Your task to perform on an android device: open app "Booking.com: Hotels and more" (install if not already installed) Image 0: 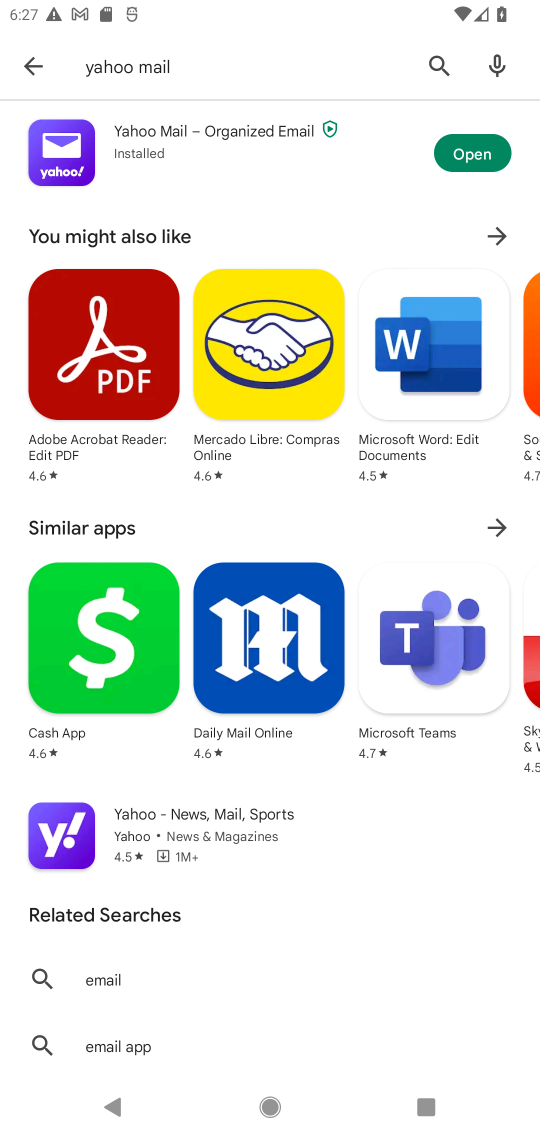
Step 0: click (431, 53)
Your task to perform on an android device: open app "Booking.com: Hotels and more" (install if not already installed) Image 1: 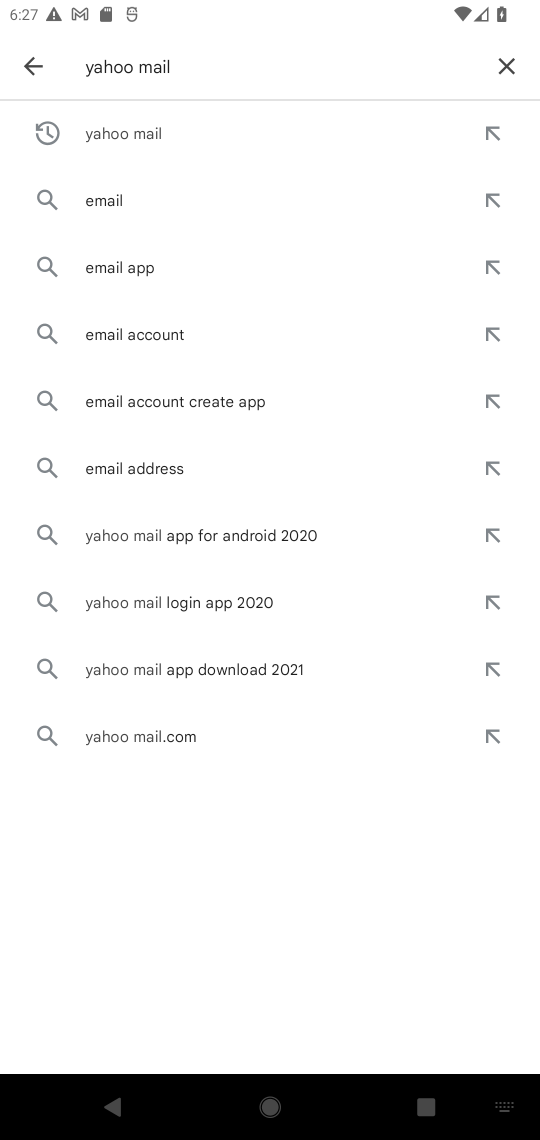
Step 1: click (507, 65)
Your task to perform on an android device: open app "Booking.com: Hotels and more" (install if not already installed) Image 2: 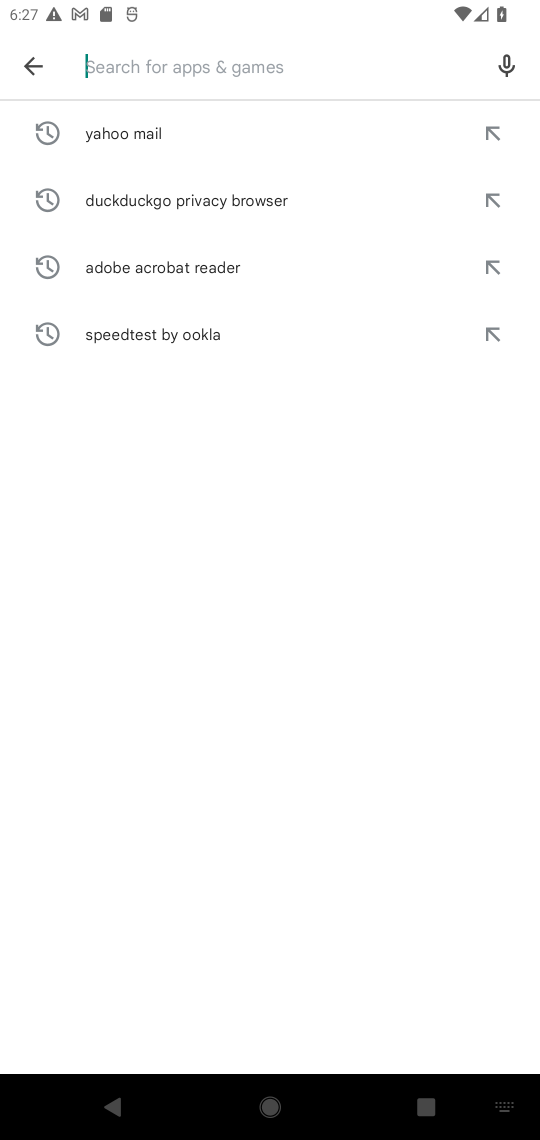
Step 2: type "Booking.com: Hotels and more"
Your task to perform on an android device: open app "Booking.com: Hotels and more" (install if not already installed) Image 3: 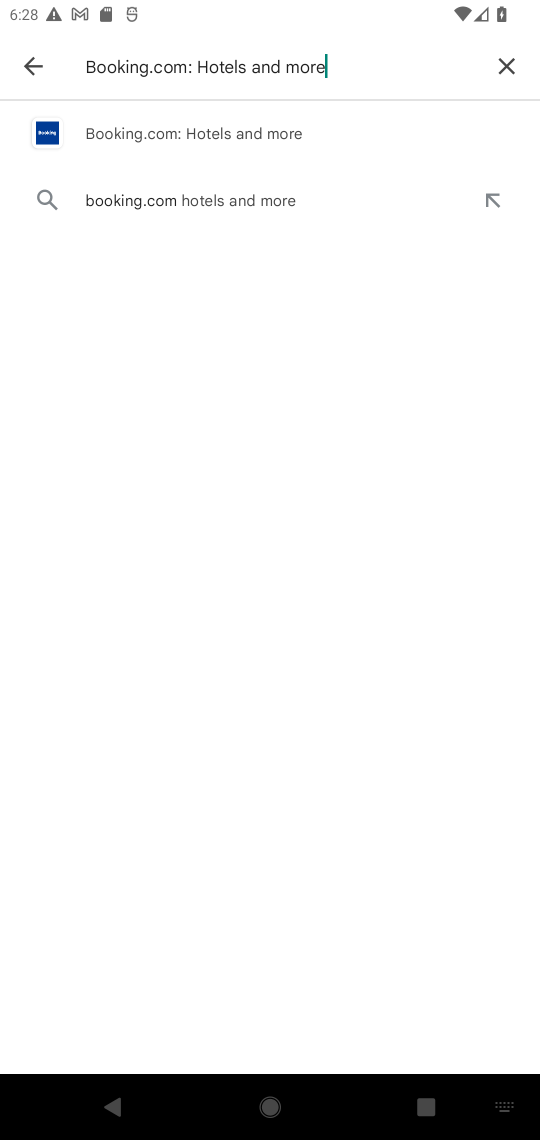
Step 3: click (195, 132)
Your task to perform on an android device: open app "Booking.com: Hotels and more" (install if not already installed) Image 4: 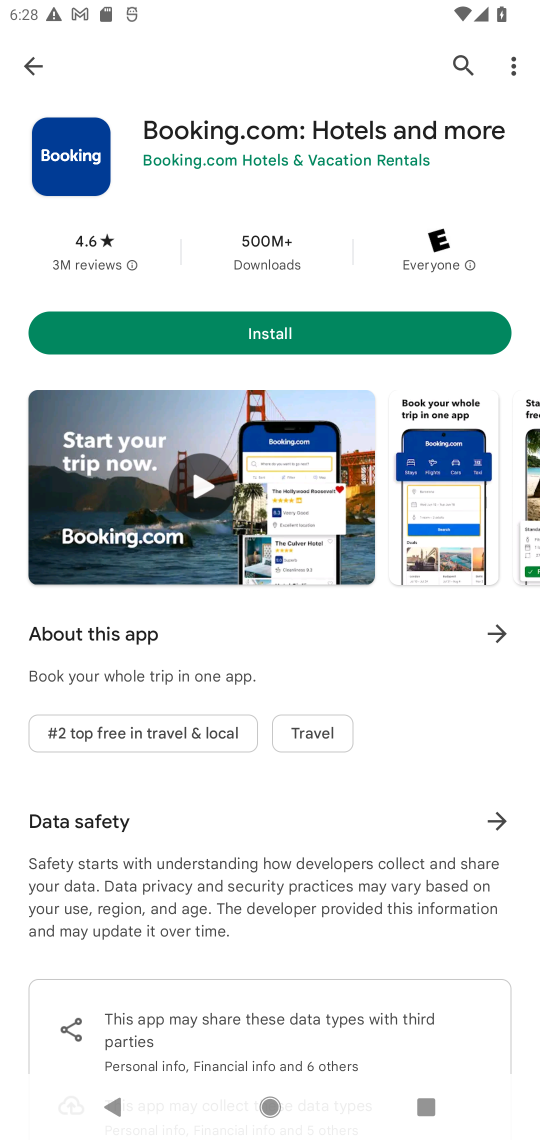
Step 4: click (302, 343)
Your task to perform on an android device: open app "Booking.com: Hotels and more" (install if not already installed) Image 5: 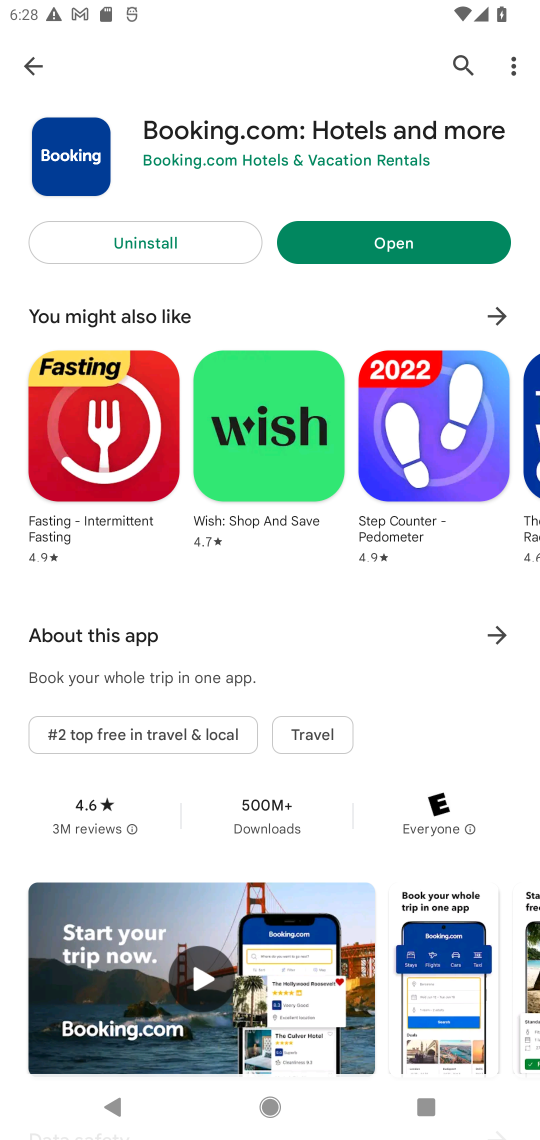
Step 5: click (346, 255)
Your task to perform on an android device: open app "Booking.com: Hotels and more" (install if not already installed) Image 6: 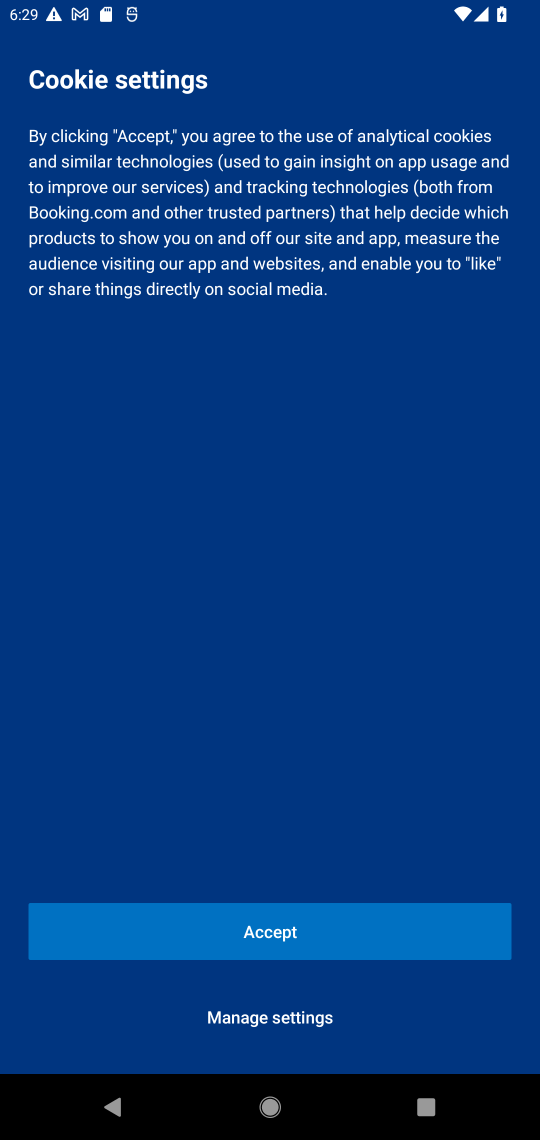
Step 6: task complete